Your task to perform on an android device: Open settings Image 0: 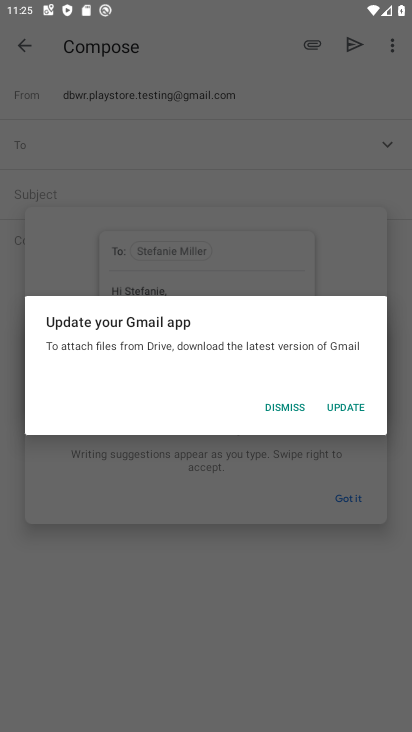
Step 0: press home button
Your task to perform on an android device: Open settings Image 1: 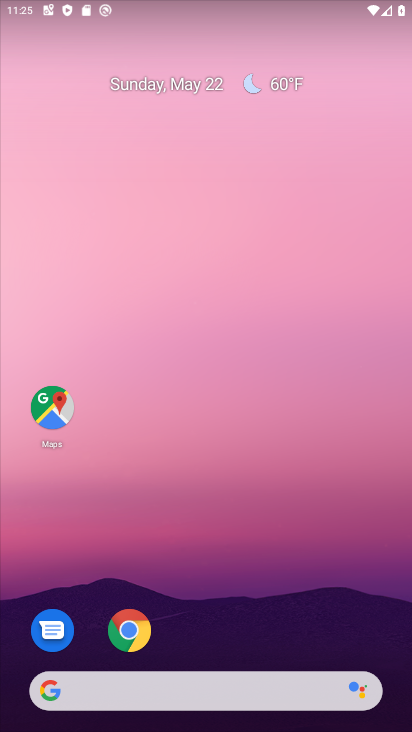
Step 1: drag from (230, 603) to (202, 143)
Your task to perform on an android device: Open settings Image 2: 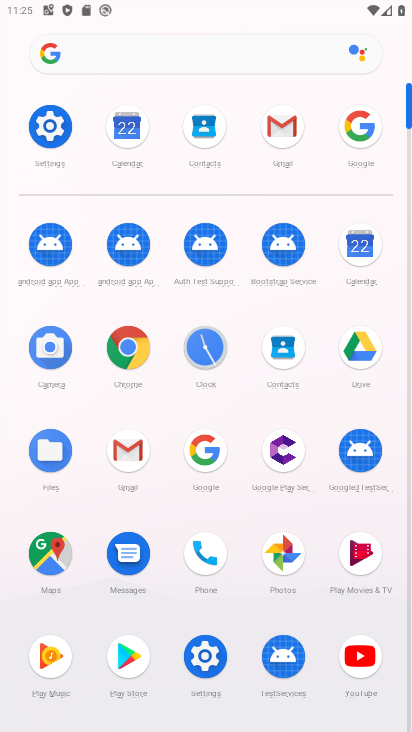
Step 2: click (50, 128)
Your task to perform on an android device: Open settings Image 3: 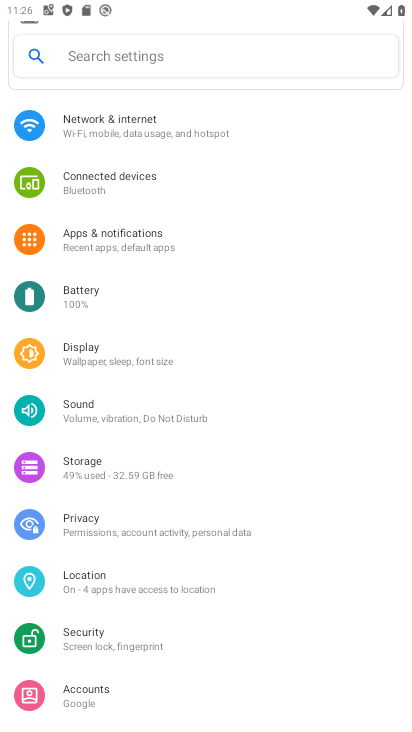
Step 3: task complete